Your task to perform on an android device: What's the weather going to be tomorrow? Image 0: 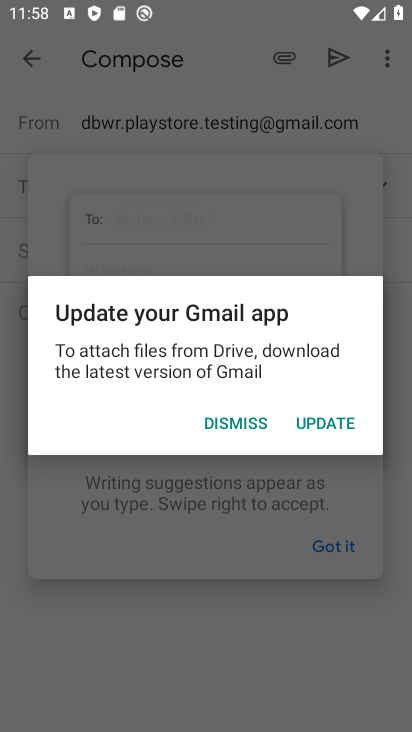
Step 0: press home button
Your task to perform on an android device: What's the weather going to be tomorrow? Image 1: 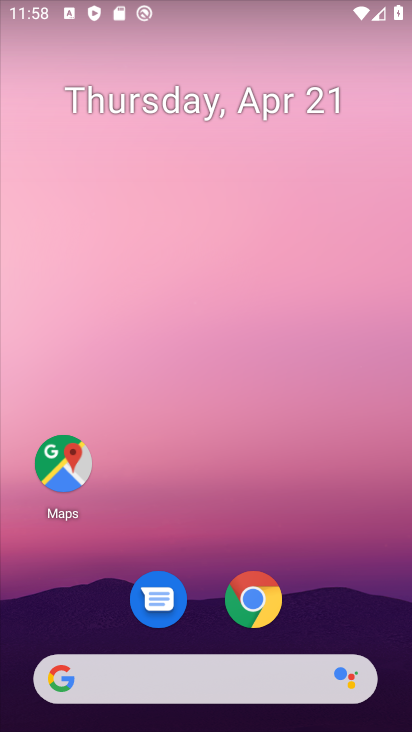
Step 1: drag from (207, 486) to (176, 69)
Your task to perform on an android device: What's the weather going to be tomorrow? Image 2: 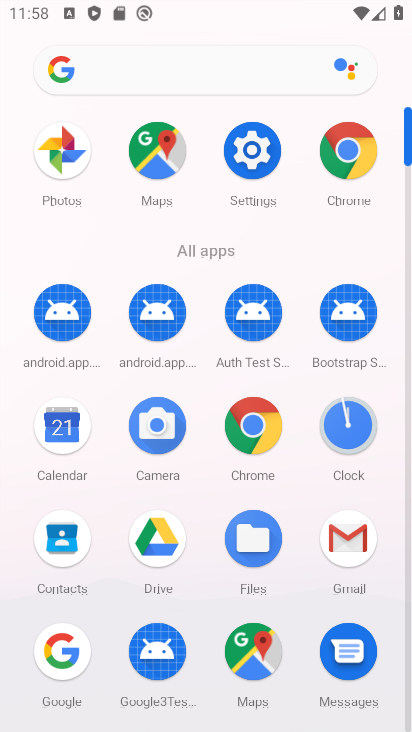
Step 2: click (60, 659)
Your task to perform on an android device: What's the weather going to be tomorrow? Image 3: 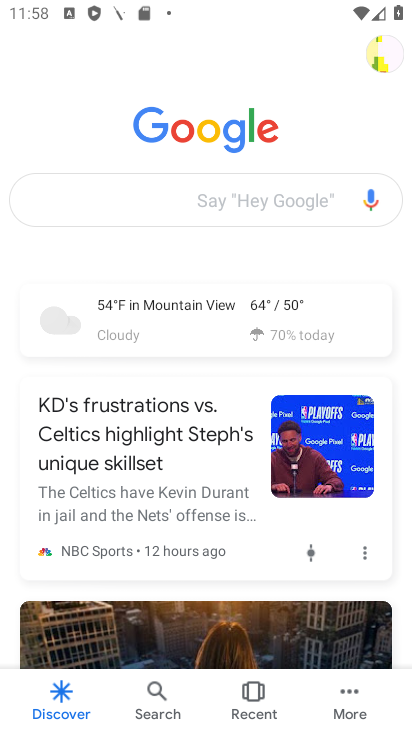
Step 3: click (266, 315)
Your task to perform on an android device: What's the weather going to be tomorrow? Image 4: 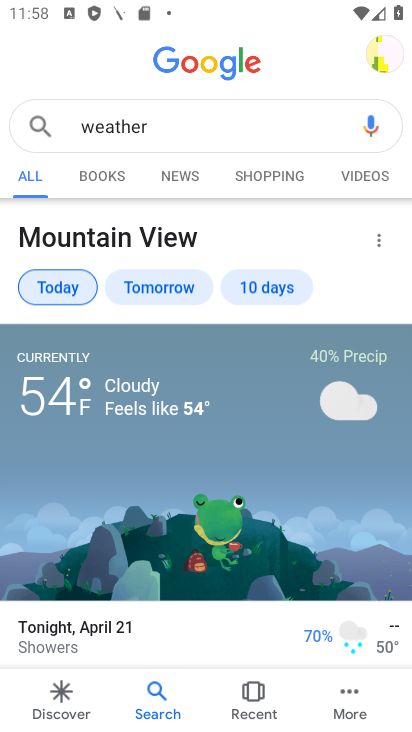
Step 4: drag from (246, 583) to (245, 289)
Your task to perform on an android device: What's the weather going to be tomorrow? Image 5: 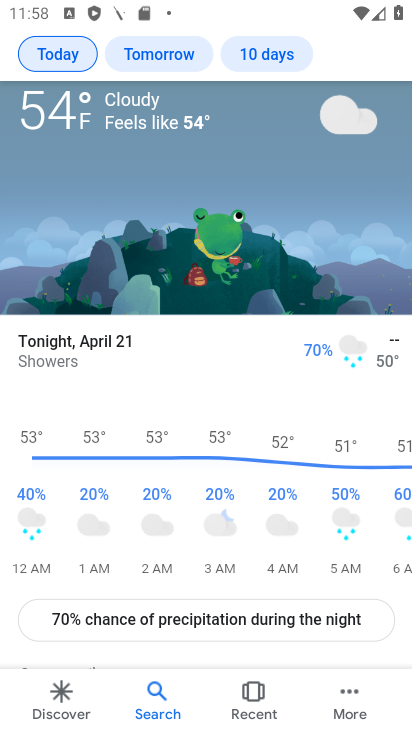
Step 5: drag from (300, 480) to (11, 518)
Your task to perform on an android device: What's the weather going to be tomorrow? Image 6: 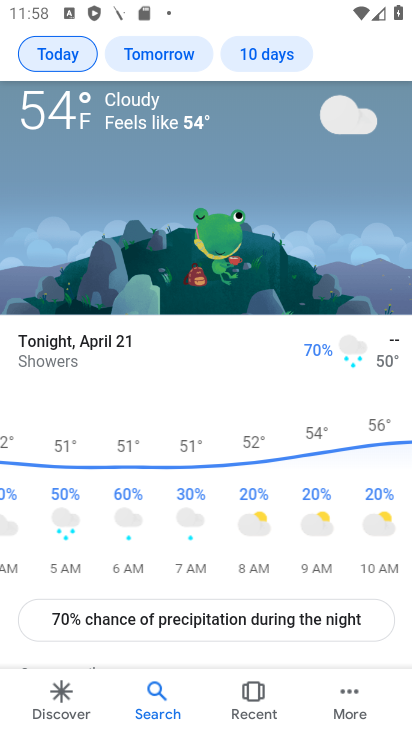
Step 6: drag from (373, 501) to (12, 514)
Your task to perform on an android device: What's the weather going to be tomorrow? Image 7: 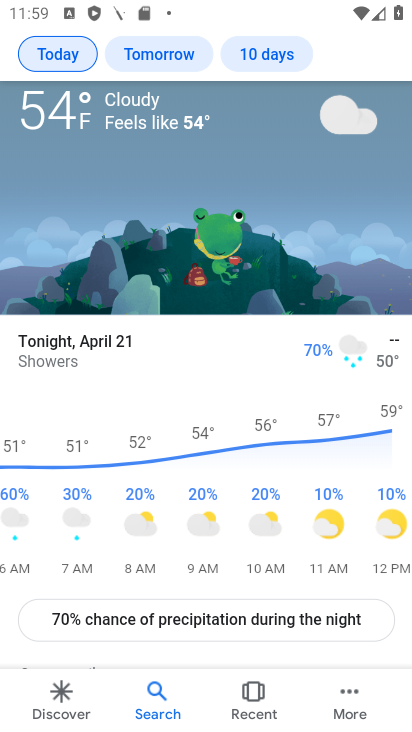
Step 7: drag from (342, 470) to (18, 534)
Your task to perform on an android device: What's the weather going to be tomorrow? Image 8: 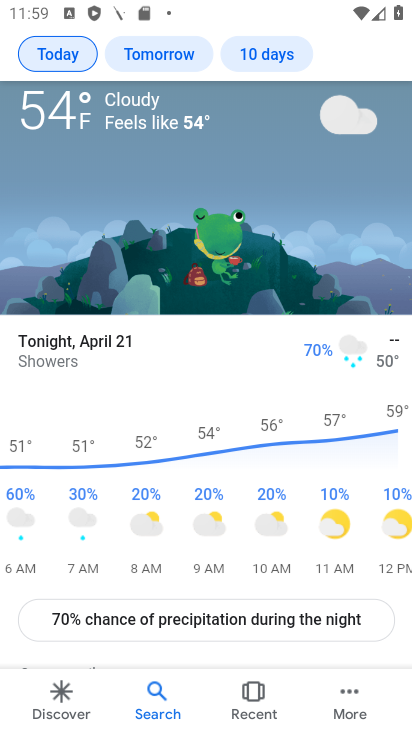
Step 8: drag from (322, 470) to (0, 486)
Your task to perform on an android device: What's the weather going to be tomorrow? Image 9: 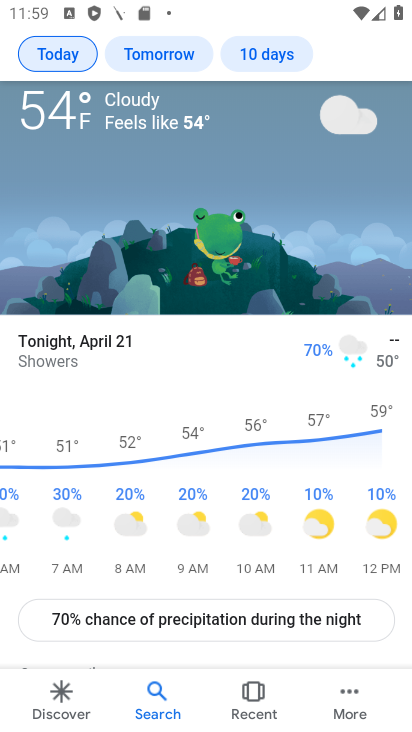
Step 9: click (165, 45)
Your task to perform on an android device: What's the weather going to be tomorrow? Image 10: 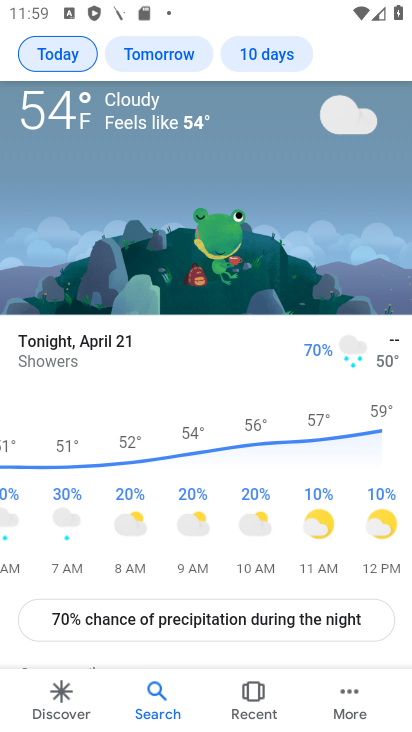
Step 10: click (163, 56)
Your task to perform on an android device: What's the weather going to be tomorrow? Image 11: 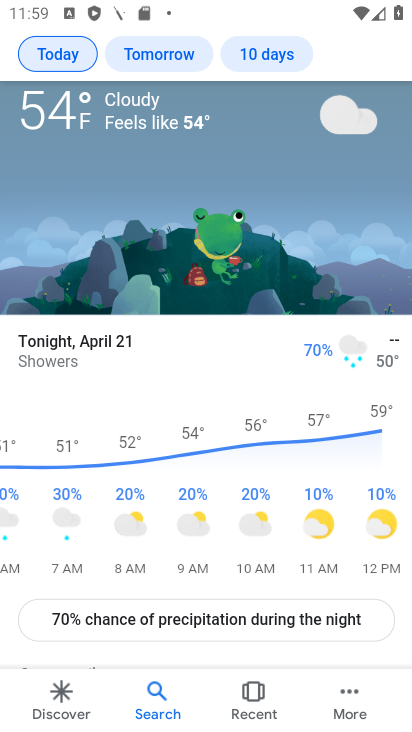
Step 11: task complete